Your task to perform on an android device: turn on the 12-hour format for clock Image 0: 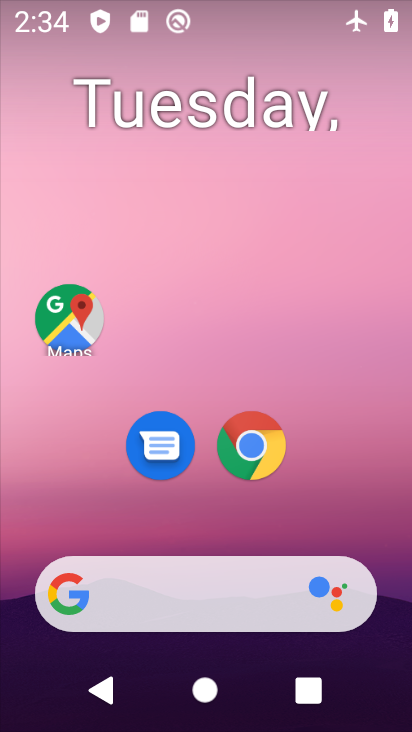
Step 0: drag from (321, 500) to (262, 230)
Your task to perform on an android device: turn on the 12-hour format for clock Image 1: 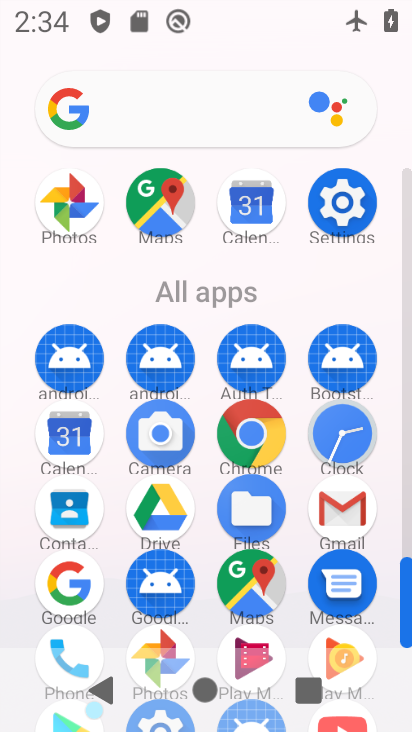
Step 1: click (348, 441)
Your task to perform on an android device: turn on the 12-hour format for clock Image 2: 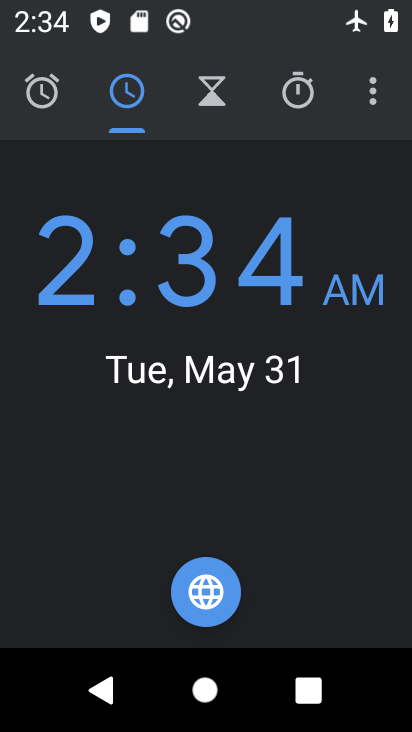
Step 2: click (372, 85)
Your task to perform on an android device: turn on the 12-hour format for clock Image 3: 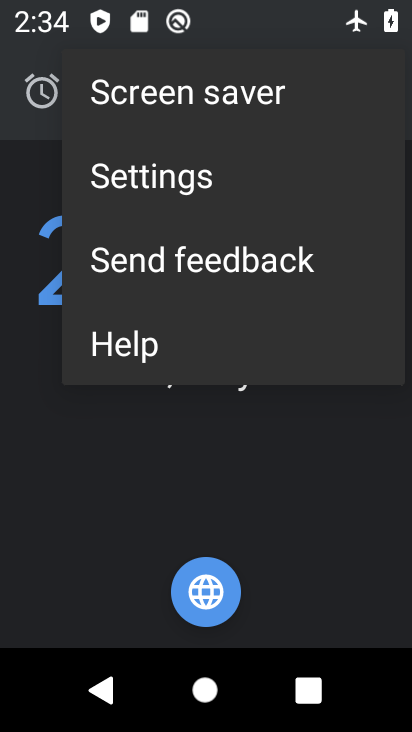
Step 3: click (226, 197)
Your task to perform on an android device: turn on the 12-hour format for clock Image 4: 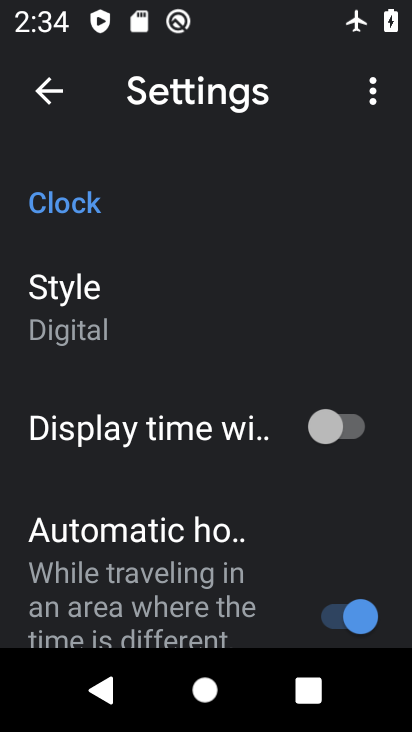
Step 4: drag from (183, 544) to (180, 302)
Your task to perform on an android device: turn on the 12-hour format for clock Image 5: 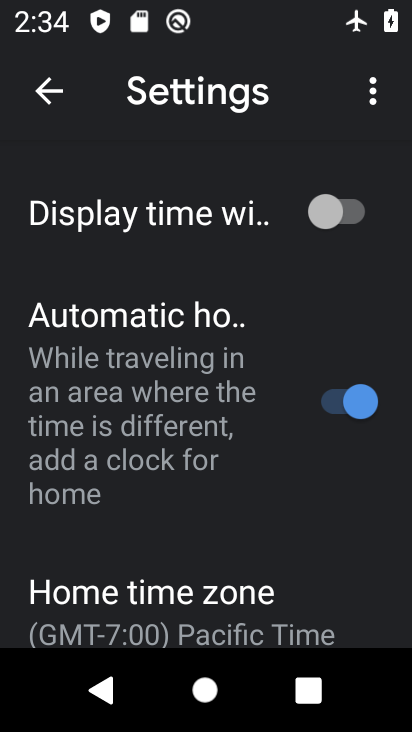
Step 5: drag from (184, 583) to (188, 257)
Your task to perform on an android device: turn on the 12-hour format for clock Image 6: 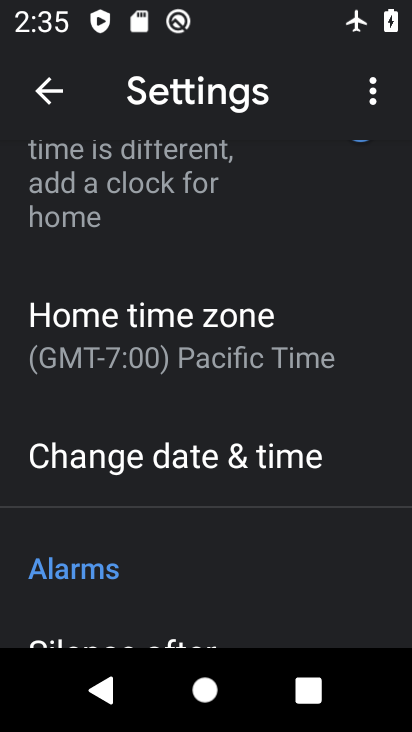
Step 6: click (165, 470)
Your task to perform on an android device: turn on the 12-hour format for clock Image 7: 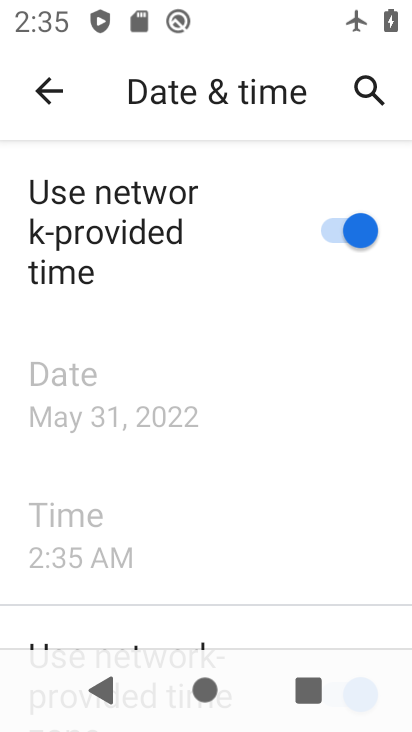
Step 7: task complete